Your task to perform on an android device: Open privacy settings Image 0: 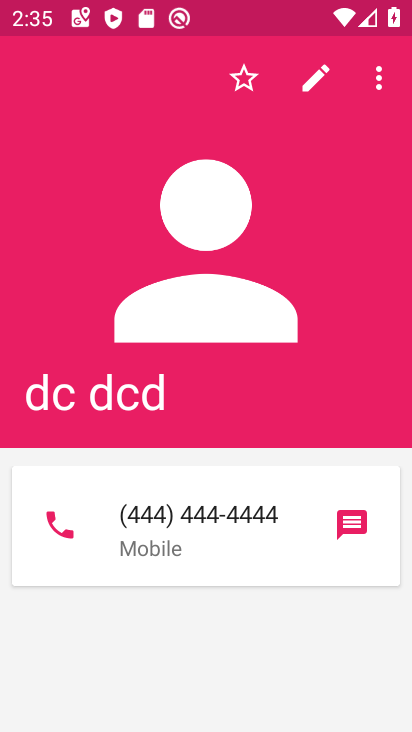
Step 0: press home button
Your task to perform on an android device: Open privacy settings Image 1: 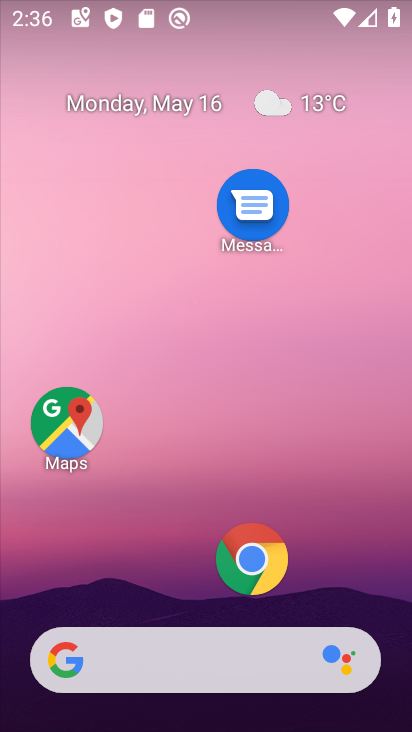
Step 1: drag from (154, 591) to (194, 87)
Your task to perform on an android device: Open privacy settings Image 2: 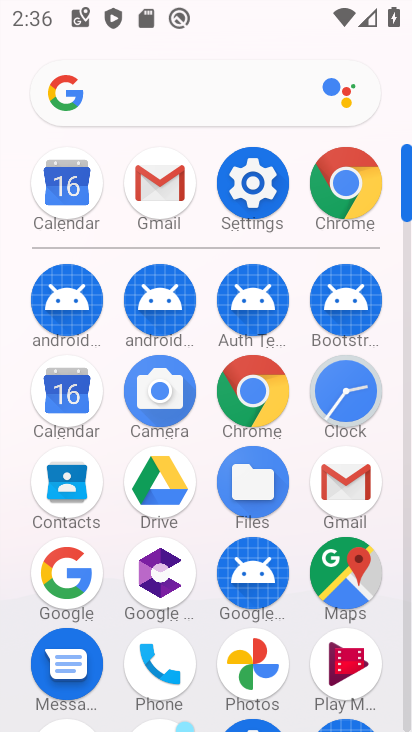
Step 2: click (245, 184)
Your task to perform on an android device: Open privacy settings Image 3: 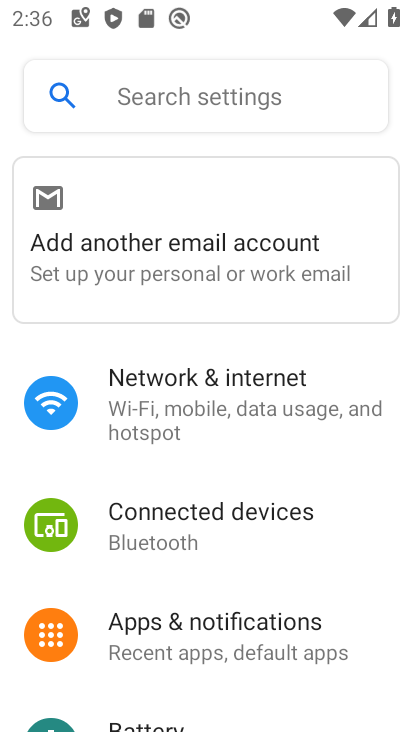
Step 3: drag from (204, 573) to (210, 181)
Your task to perform on an android device: Open privacy settings Image 4: 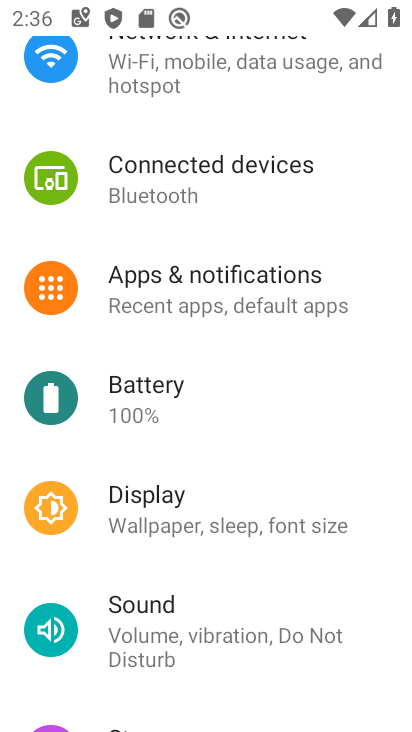
Step 4: drag from (234, 609) to (244, 273)
Your task to perform on an android device: Open privacy settings Image 5: 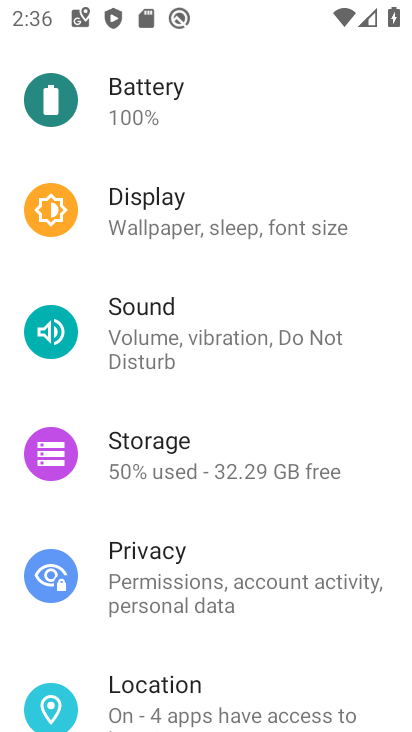
Step 5: click (158, 585)
Your task to perform on an android device: Open privacy settings Image 6: 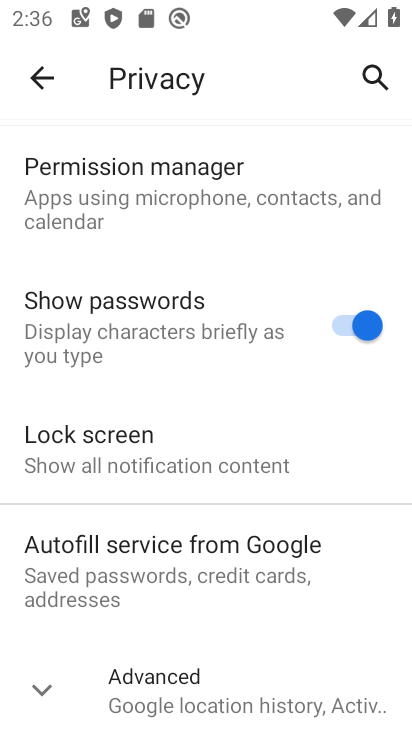
Step 6: task complete